Your task to perform on an android device: Open Google Maps and go to "Timeline" Image 0: 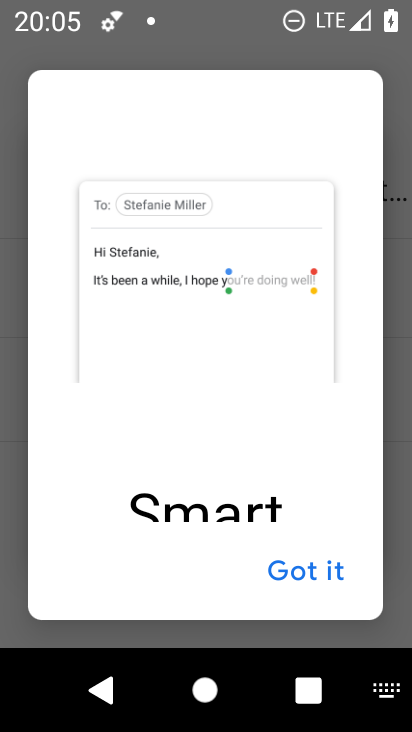
Step 0: press home button
Your task to perform on an android device: Open Google Maps and go to "Timeline" Image 1: 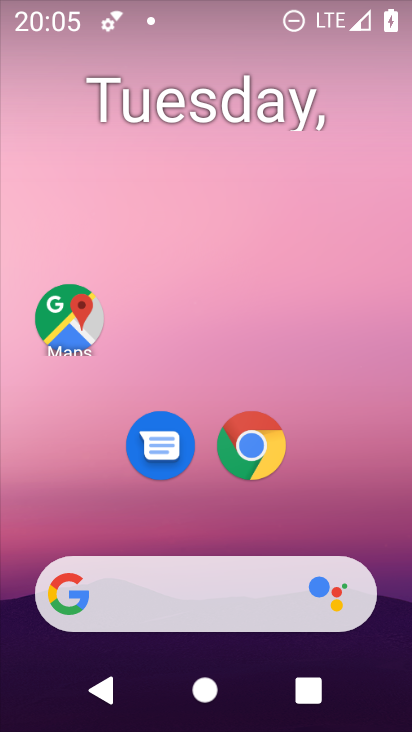
Step 1: drag from (159, 506) to (216, 71)
Your task to perform on an android device: Open Google Maps and go to "Timeline" Image 2: 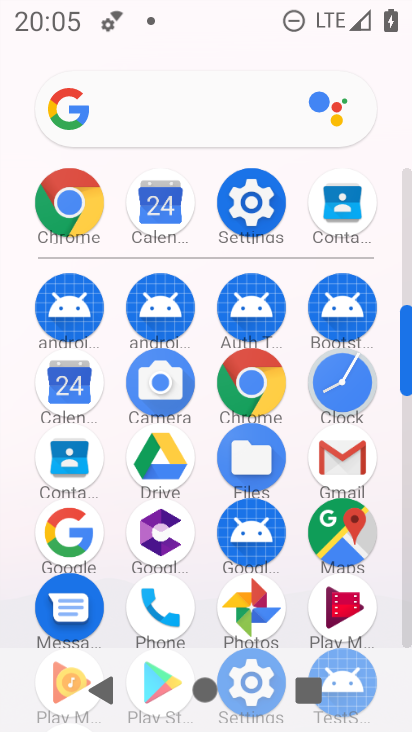
Step 2: click (329, 544)
Your task to perform on an android device: Open Google Maps and go to "Timeline" Image 3: 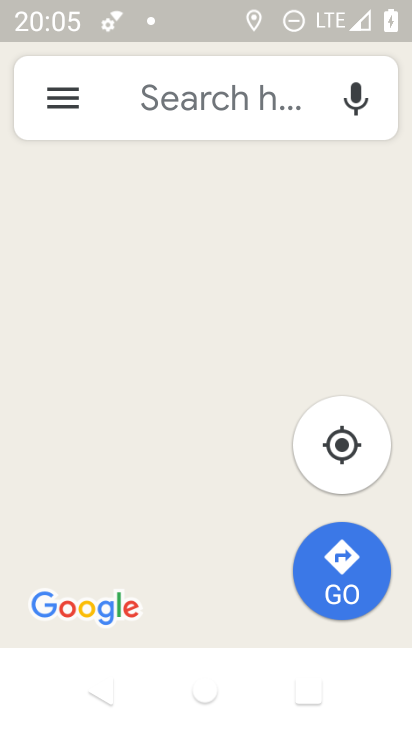
Step 3: click (42, 105)
Your task to perform on an android device: Open Google Maps and go to "Timeline" Image 4: 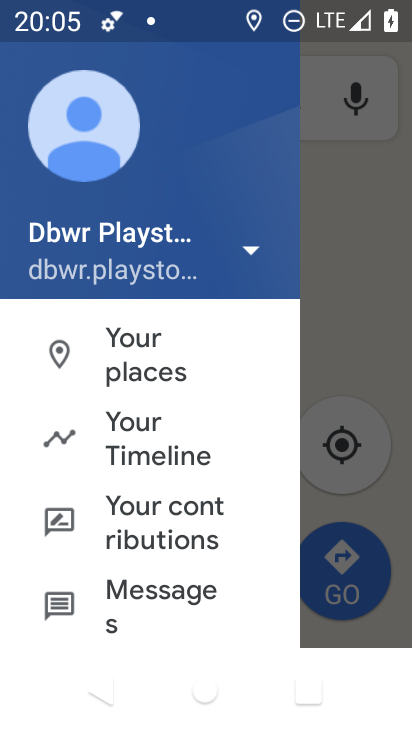
Step 4: click (131, 472)
Your task to perform on an android device: Open Google Maps and go to "Timeline" Image 5: 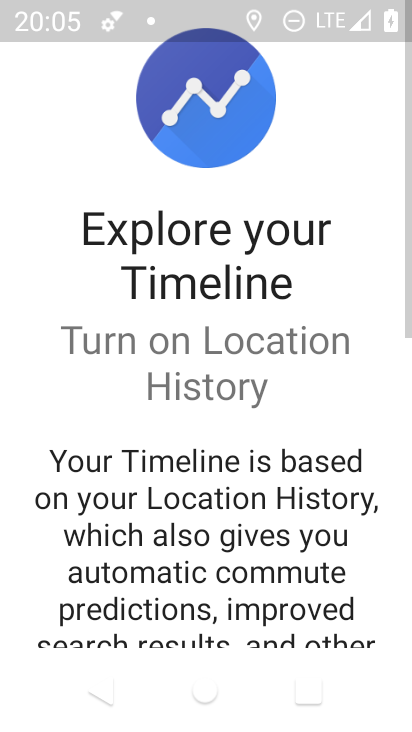
Step 5: drag from (252, 614) to (251, 389)
Your task to perform on an android device: Open Google Maps and go to "Timeline" Image 6: 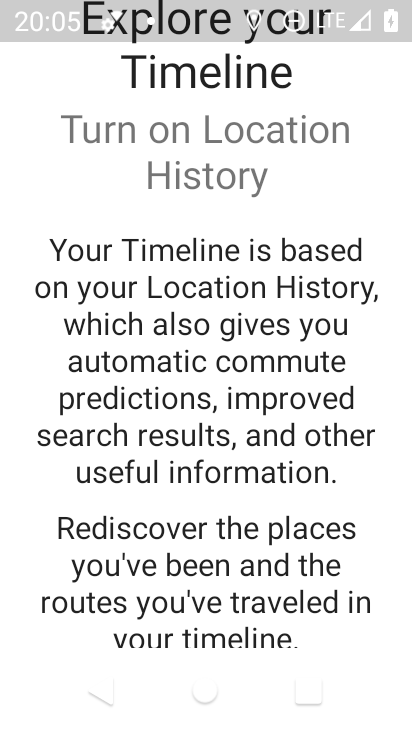
Step 6: drag from (170, 556) to (170, 463)
Your task to perform on an android device: Open Google Maps and go to "Timeline" Image 7: 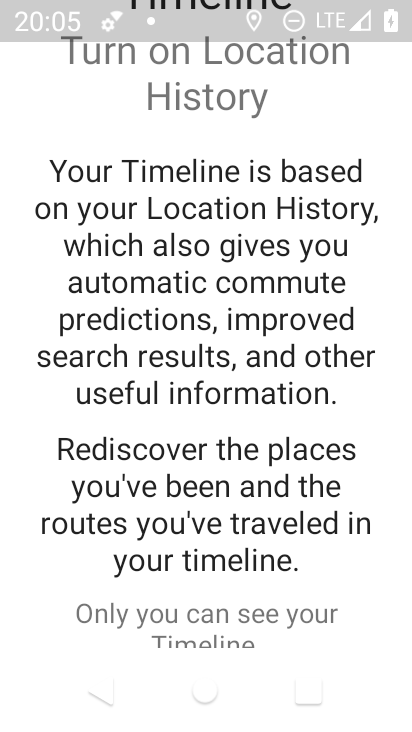
Step 7: click (170, 461)
Your task to perform on an android device: Open Google Maps and go to "Timeline" Image 8: 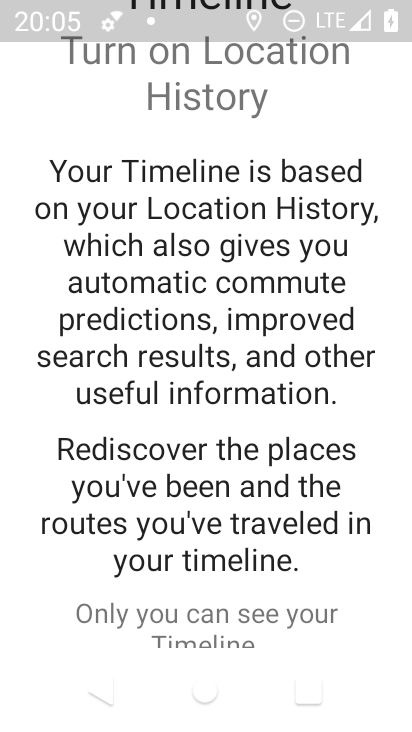
Step 8: drag from (162, 590) to (235, 366)
Your task to perform on an android device: Open Google Maps and go to "Timeline" Image 9: 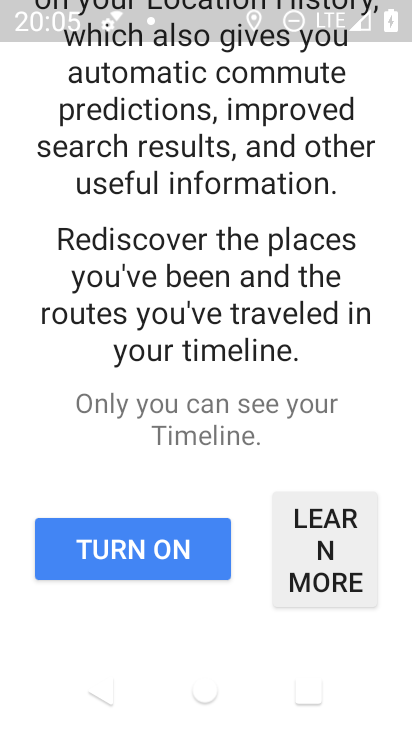
Step 9: click (172, 567)
Your task to perform on an android device: Open Google Maps and go to "Timeline" Image 10: 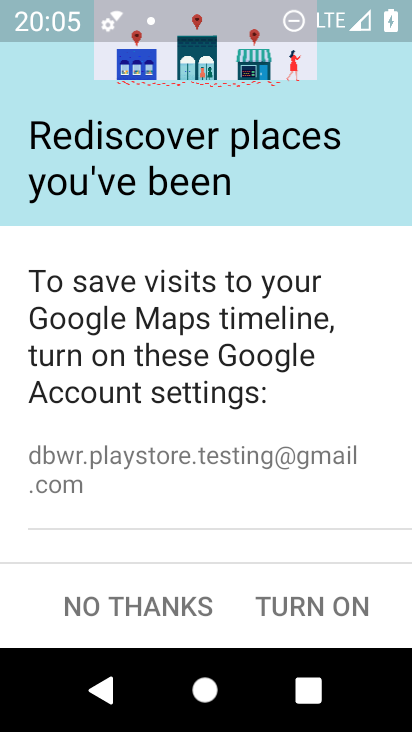
Step 10: task complete